Your task to perform on an android device: delete location history Image 0: 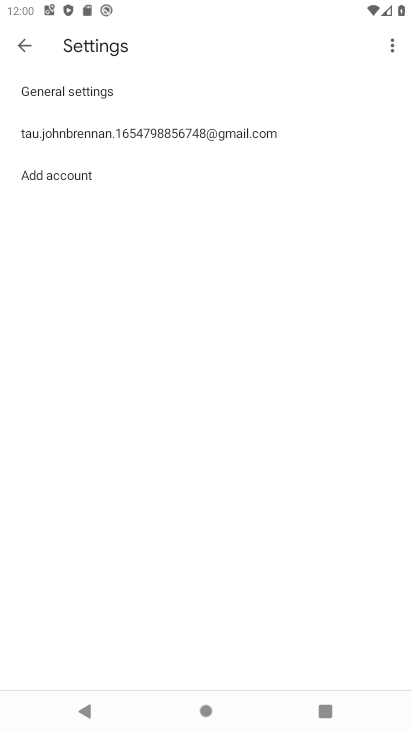
Step 0: press home button
Your task to perform on an android device: delete location history Image 1: 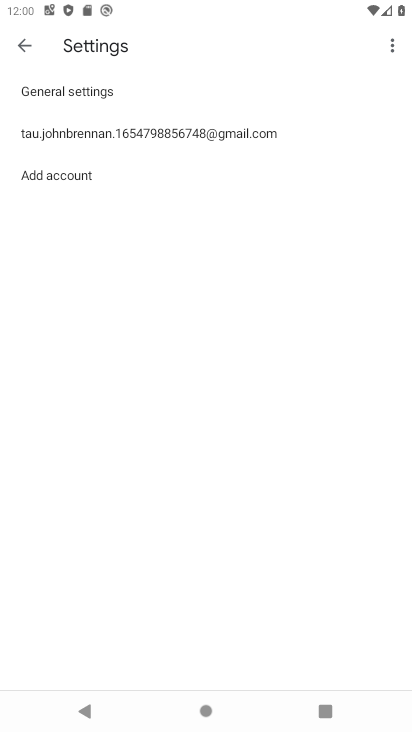
Step 1: press home button
Your task to perform on an android device: delete location history Image 2: 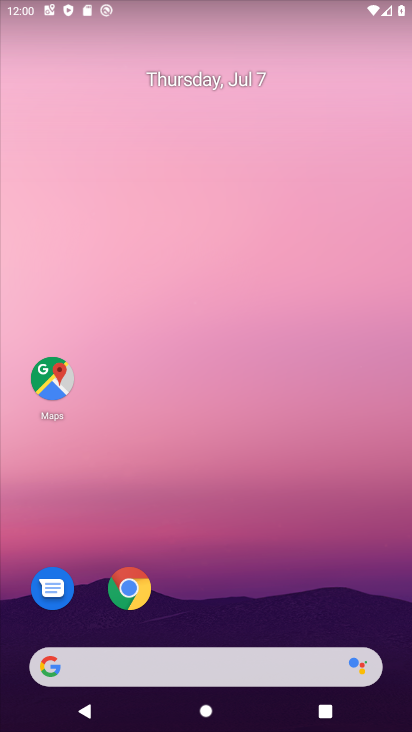
Step 2: click (243, 662)
Your task to perform on an android device: delete location history Image 3: 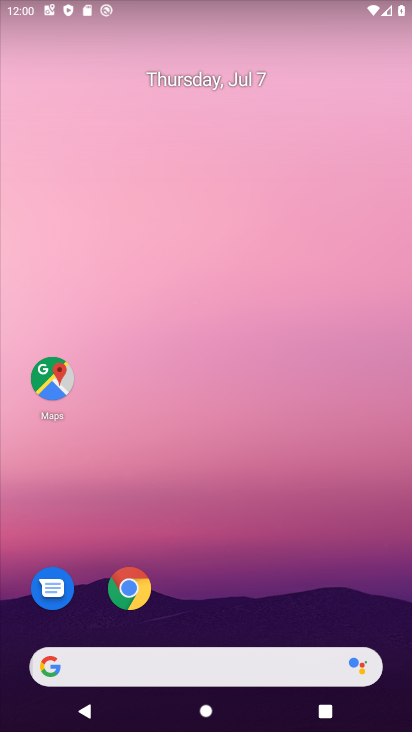
Step 3: click (252, 117)
Your task to perform on an android device: delete location history Image 4: 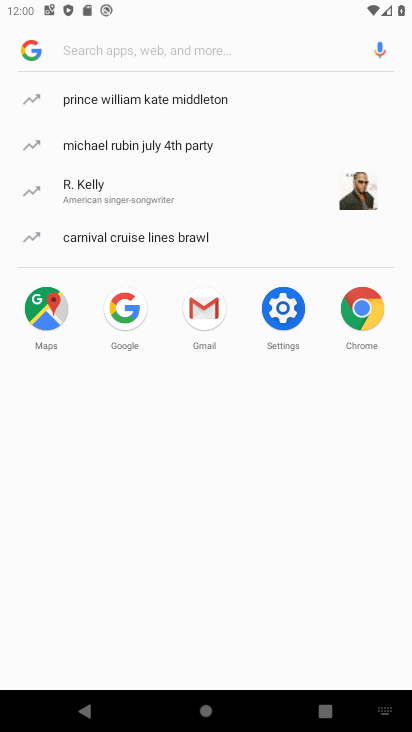
Step 4: press home button
Your task to perform on an android device: delete location history Image 5: 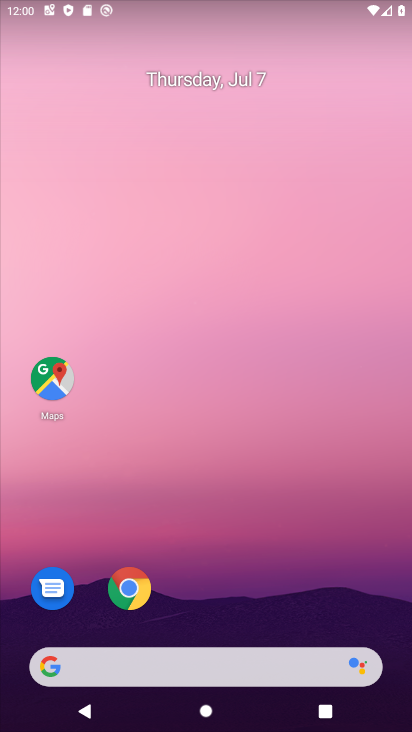
Step 5: drag from (254, 729) to (239, 96)
Your task to perform on an android device: delete location history Image 6: 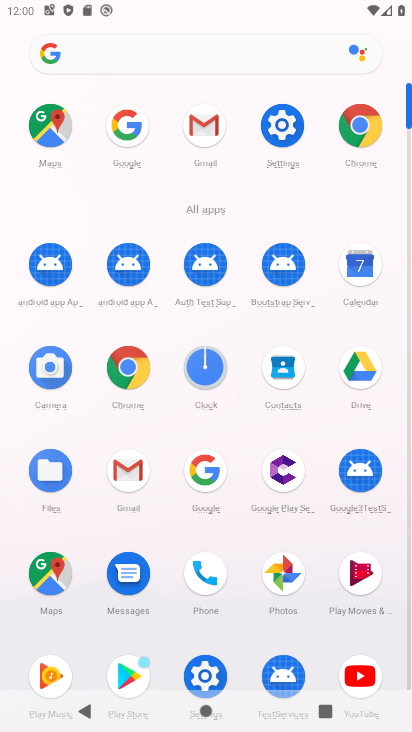
Step 6: click (54, 578)
Your task to perform on an android device: delete location history Image 7: 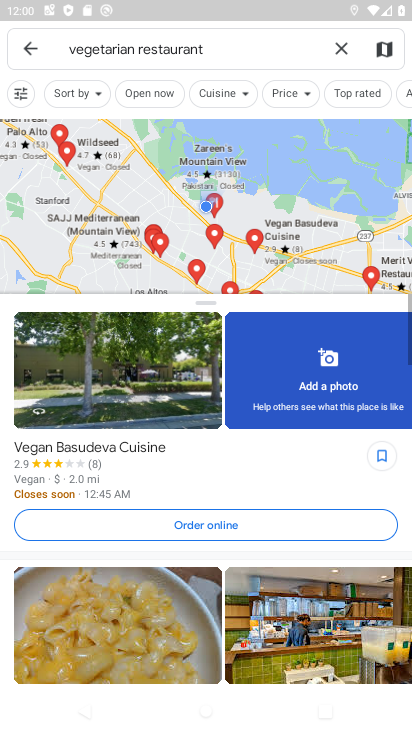
Step 7: click (29, 48)
Your task to perform on an android device: delete location history Image 8: 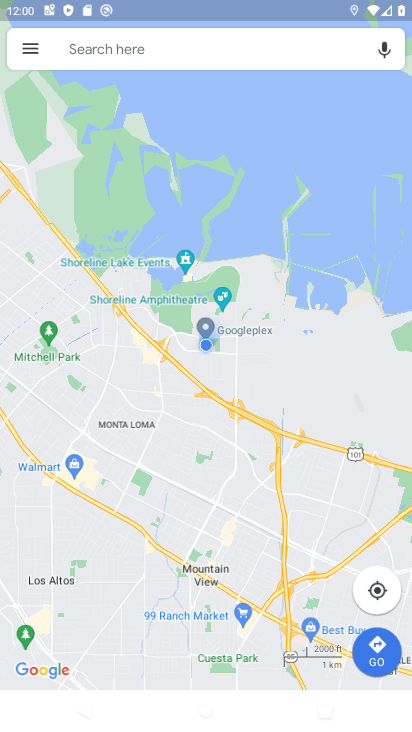
Step 8: click (29, 46)
Your task to perform on an android device: delete location history Image 9: 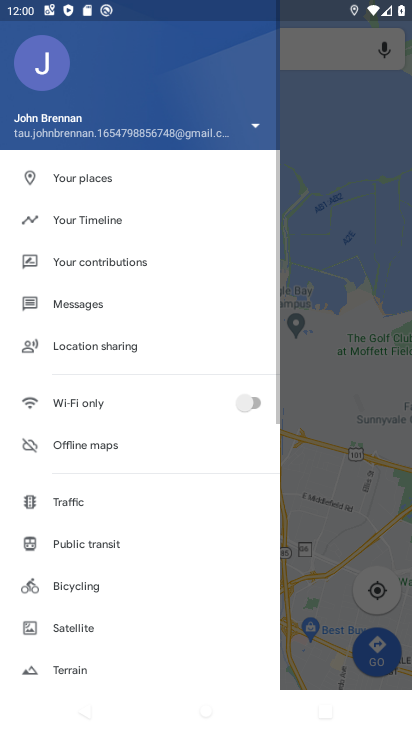
Step 9: drag from (88, 620) to (86, 341)
Your task to perform on an android device: delete location history Image 10: 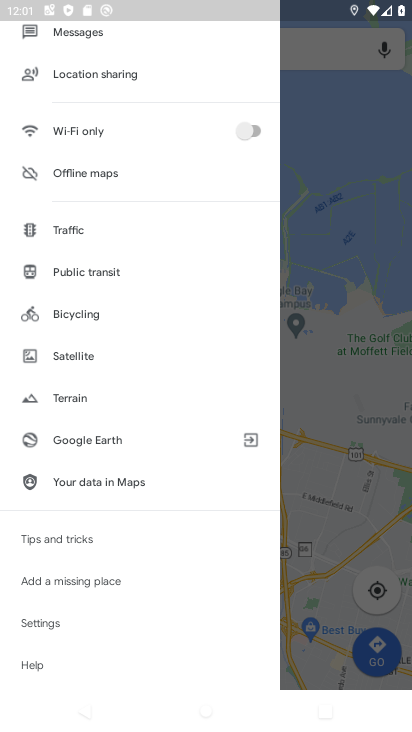
Step 10: drag from (177, 109) to (161, 565)
Your task to perform on an android device: delete location history Image 11: 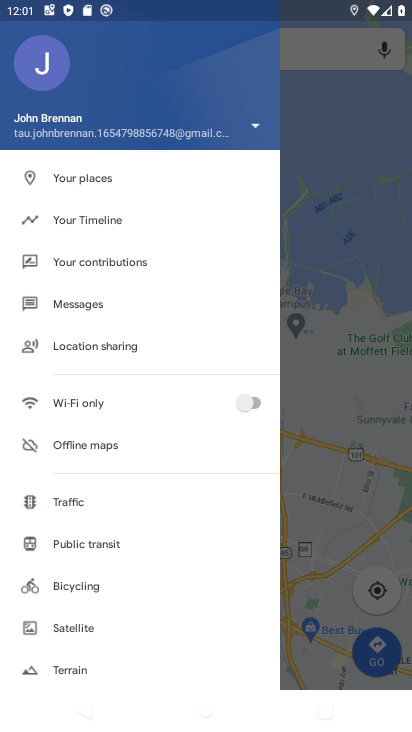
Step 11: click (97, 218)
Your task to perform on an android device: delete location history Image 12: 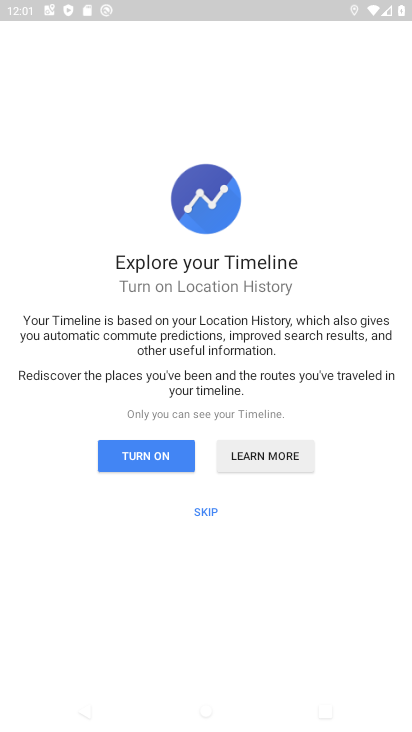
Step 12: click (210, 508)
Your task to perform on an android device: delete location history Image 13: 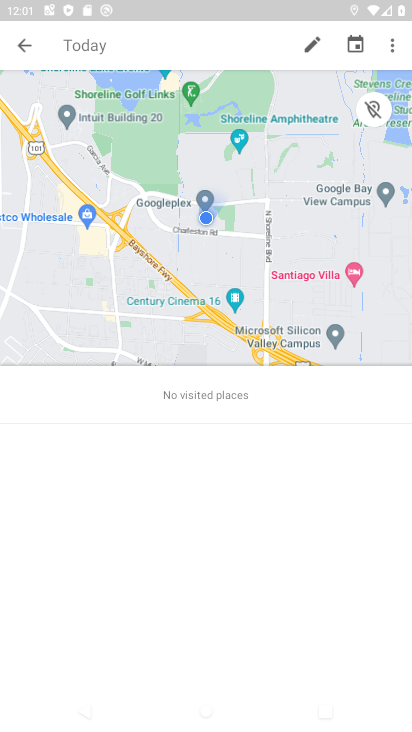
Step 13: click (391, 47)
Your task to perform on an android device: delete location history Image 14: 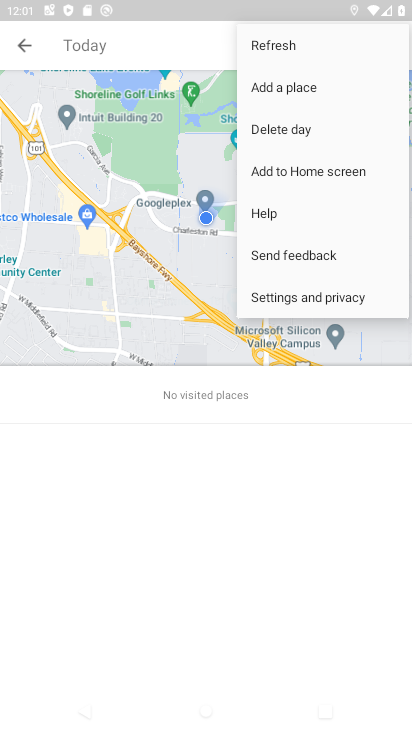
Step 14: click (283, 297)
Your task to perform on an android device: delete location history Image 15: 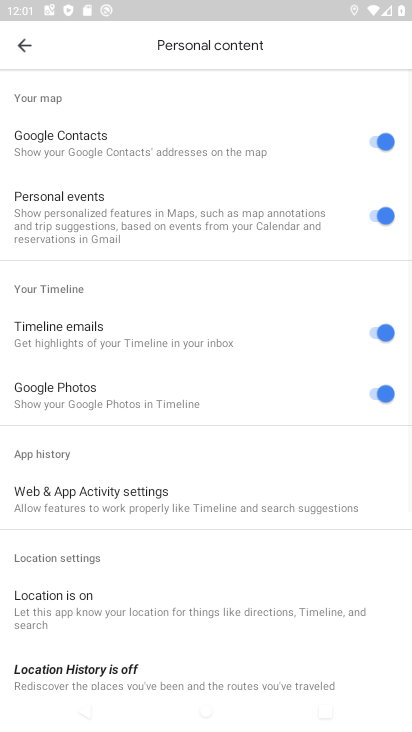
Step 15: drag from (169, 660) to (157, 279)
Your task to perform on an android device: delete location history Image 16: 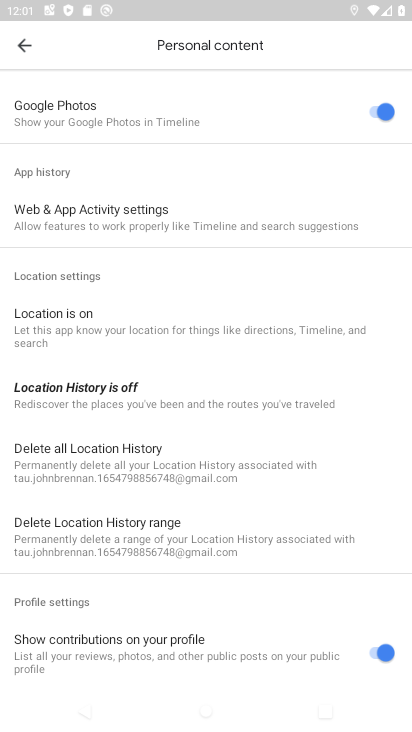
Step 16: click (112, 458)
Your task to perform on an android device: delete location history Image 17: 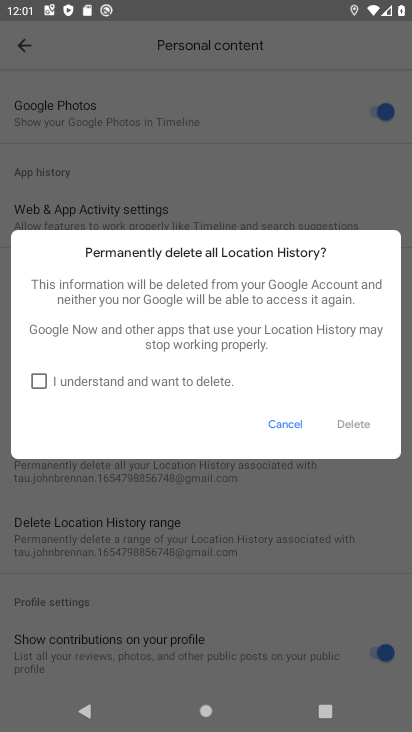
Step 17: click (33, 383)
Your task to perform on an android device: delete location history Image 18: 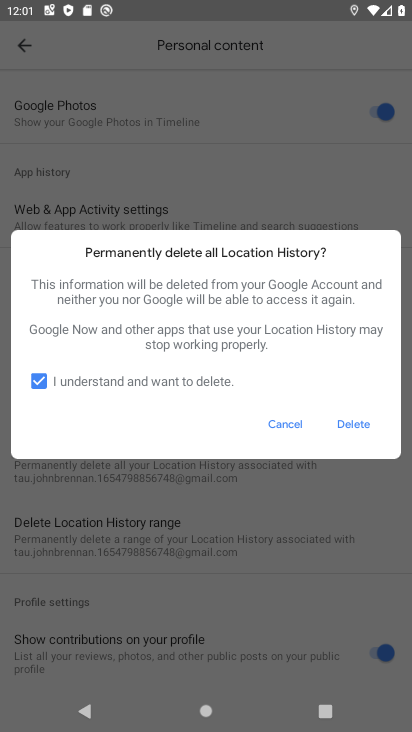
Step 18: click (361, 417)
Your task to perform on an android device: delete location history Image 19: 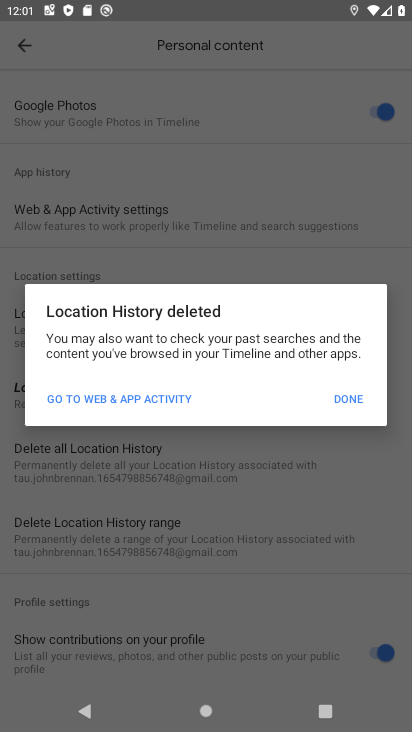
Step 19: click (345, 391)
Your task to perform on an android device: delete location history Image 20: 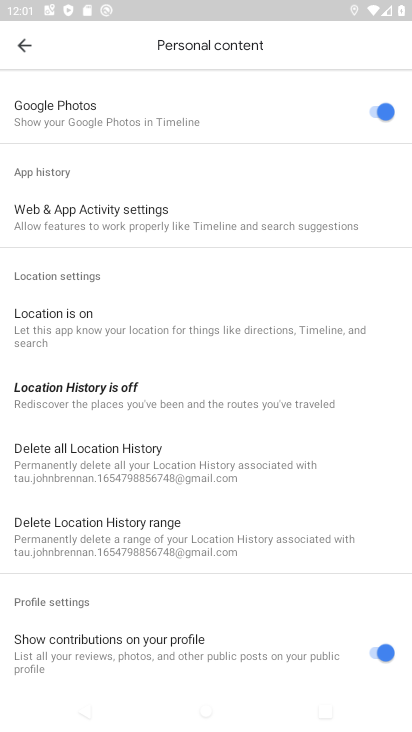
Step 20: task complete